Your task to perform on an android device: delete a single message in the gmail app Image 0: 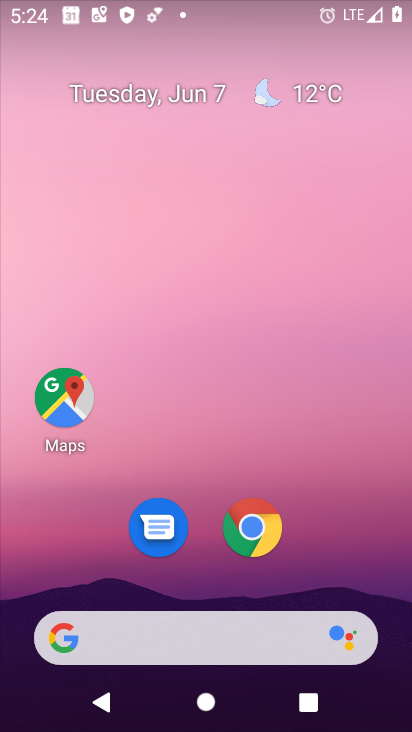
Step 0: drag from (324, 571) to (246, 111)
Your task to perform on an android device: delete a single message in the gmail app Image 1: 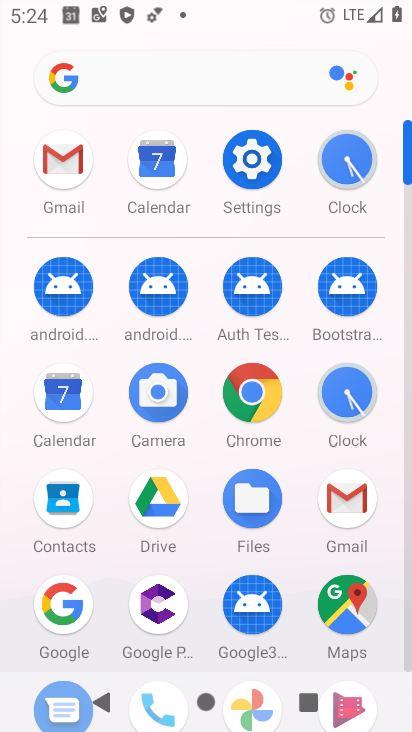
Step 1: click (63, 157)
Your task to perform on an android device: delete a single message in the gmail app Image 2: 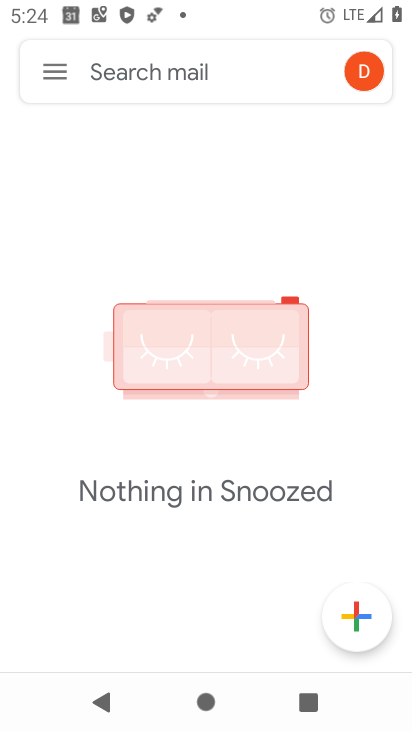
Step 2: click (50, 65)
Your task to perform on an android device: delete a single message in the gmail app Image 3: 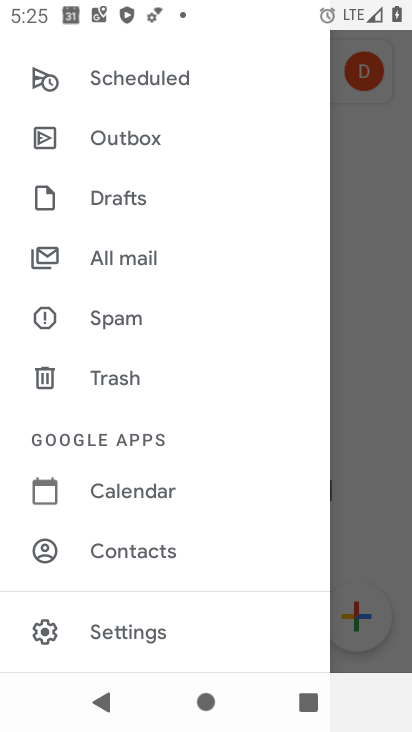
Step 3: drag from (175, 339) to (182, 441)
Your task to perform on an android device: delete a single message in the gmail app Image 4: 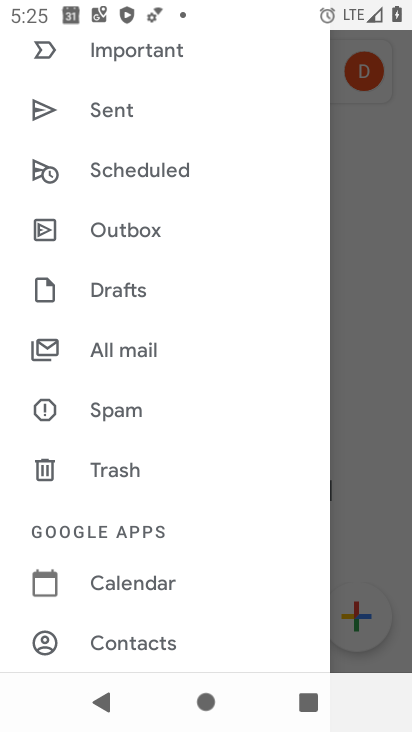
Step 4: drag from (139, 306) to (139, 462)
Your task to perform on an android device: delete a single message in the gmail app Image 5: 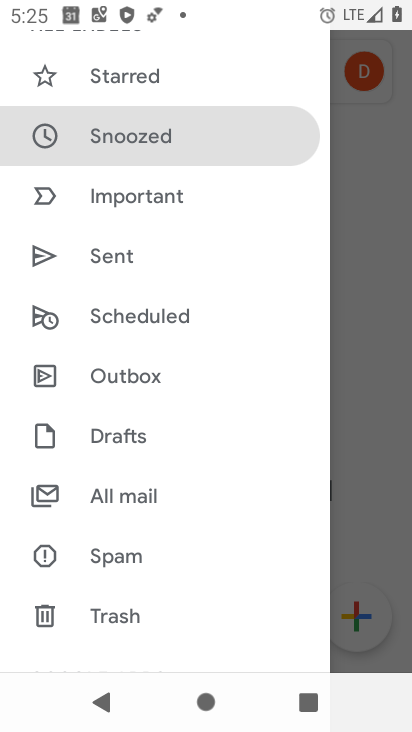
Step 5: drag from (147, 218) to (167, 428)
Your task to perform on an android device: delete a single message in the gmail app Image 6: 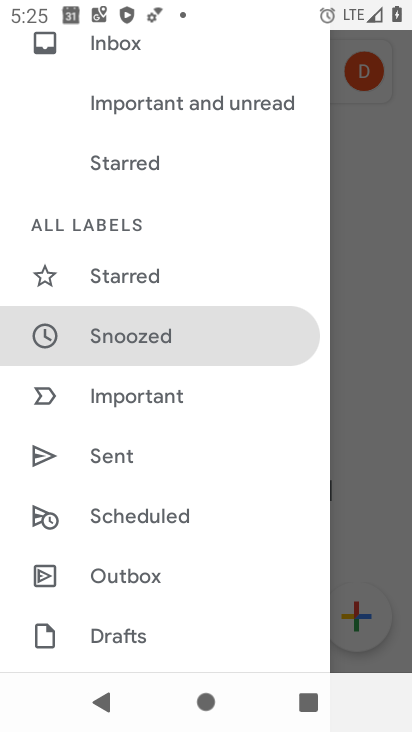
Step 6: drag from (145, 179) to (162, 439)
Your task to perform on an android device: delete a single message in the gmail app Image 7: 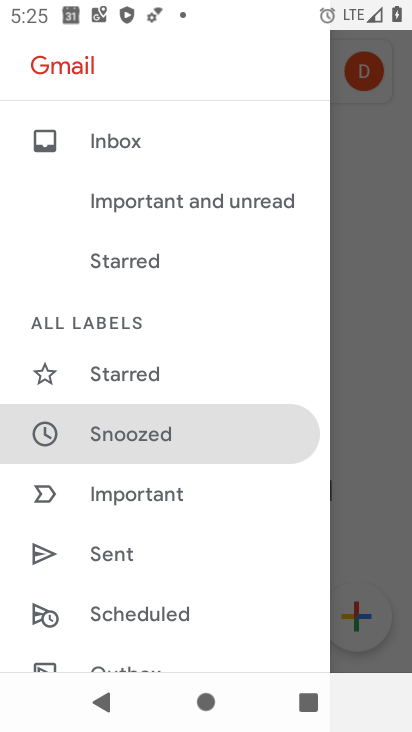
Step 7: click (112, 150)
Your task to perform on an android device: delete a single message in the gmail app Image 8: 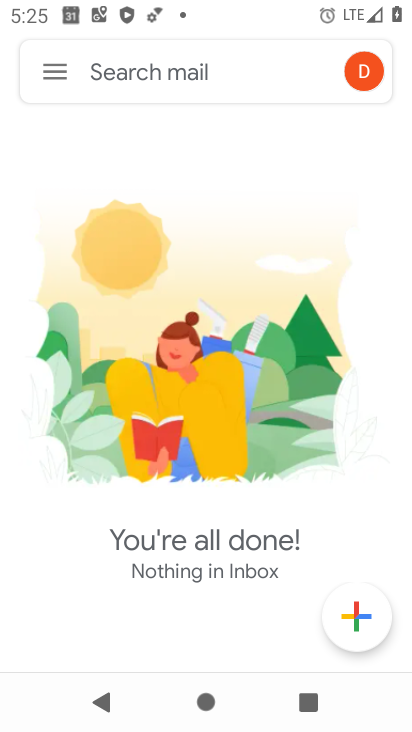
Step 8: click (66, 63)
Your task to perform on an android device: delete a single message in the gmail app Image 9: 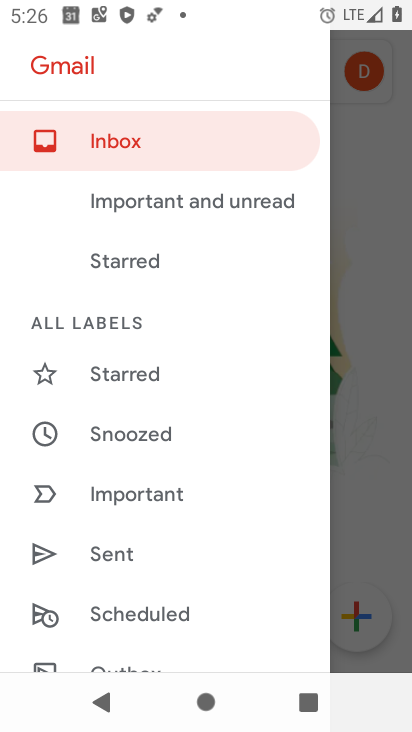
Step 9: click (123, 202)
Your task to perform on an android device: delete a single message in the gmail app Image 10: 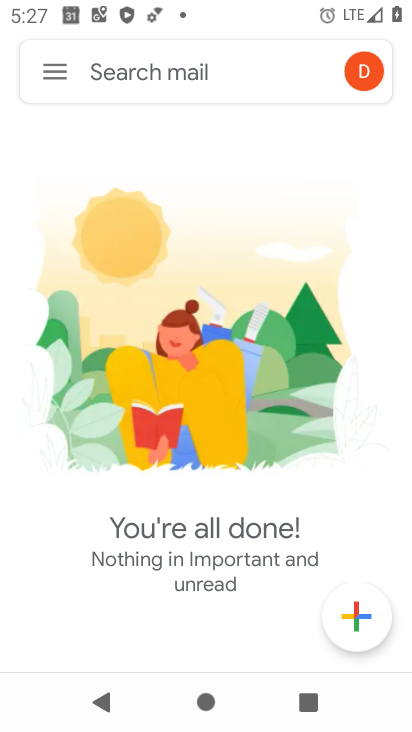
Step 10: click (65, 74)
Your task to perform on an android device: delete a single message in the gmail app Image 11: 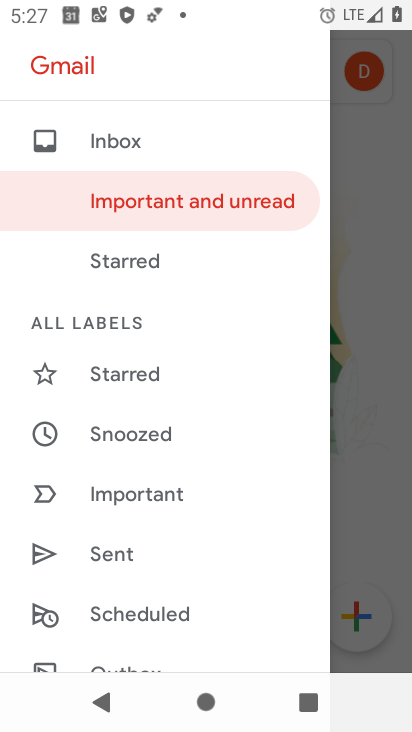
Step 11: click (114, 442)
Your task to perform on an android device: delete a single message in the gmail app Image 12: 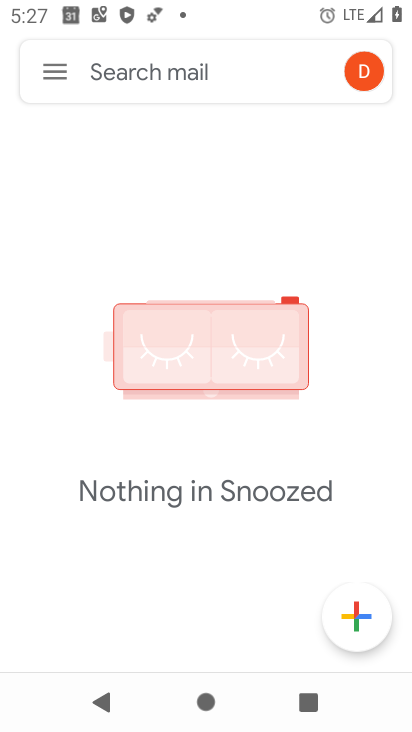
Step 12: click (51, 66)
Your task to perform on an android device: delete a single message in the gmail app Image 13: 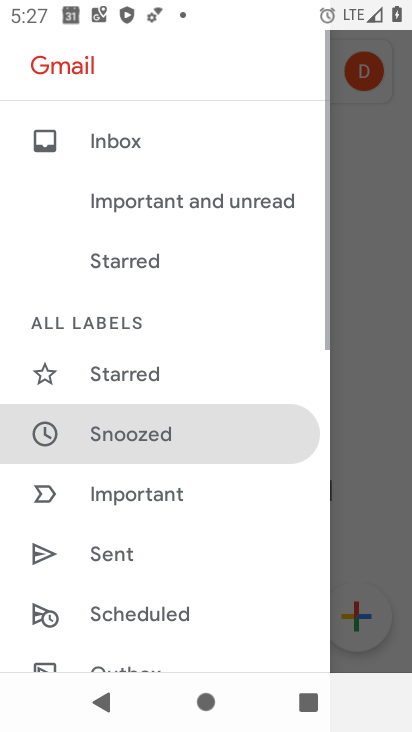
Step 13: click (128, 493)
Your task to perform on an android device: delete a single message in the gmail app Image 14: 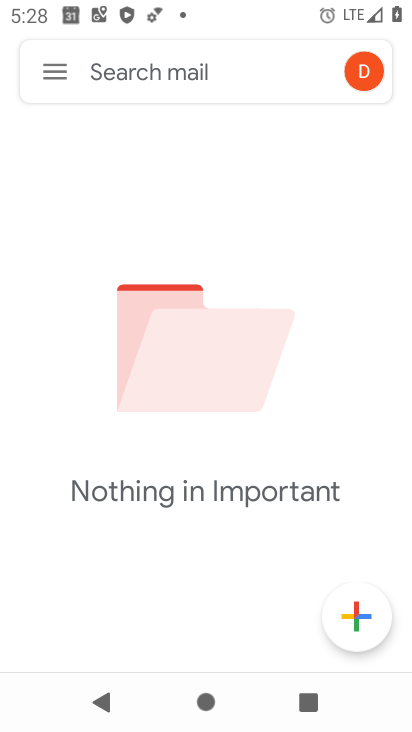
Step 14: task complete